Your task to perform on an android device: What's on my calendar today? Image 0: 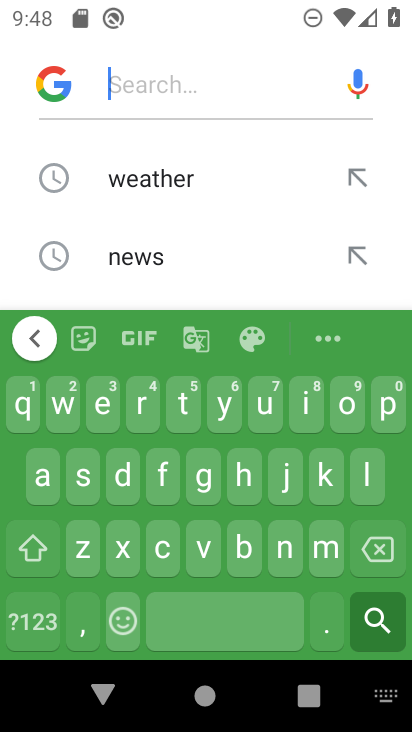
Step 0: press home button
Your task to perform on an android device: What's on my calendar today? Image 1: 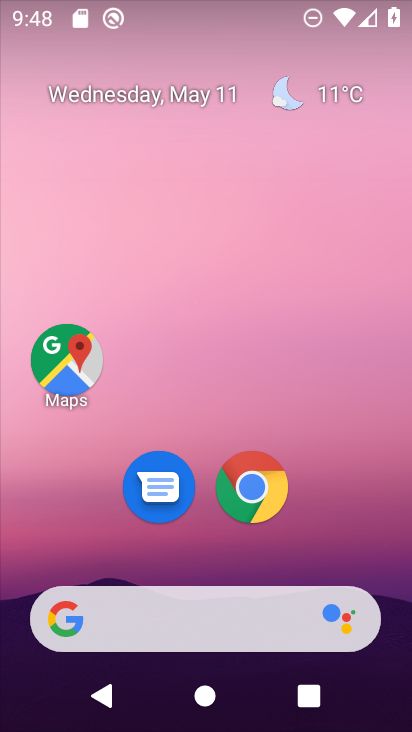
Step 1: drag from (252, 661) to (298, 196)
Your task to perform on an android device: What's on my calendar today? Image 2: 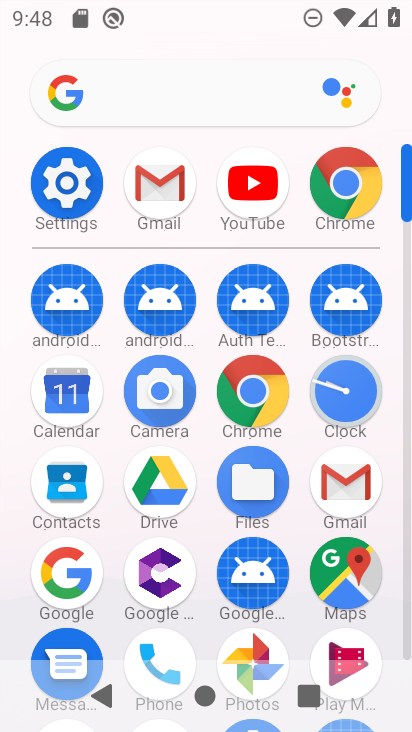
Step 2: click (74, 398)
Your task to perform on an android device: What's on my calendar today? Image 3: 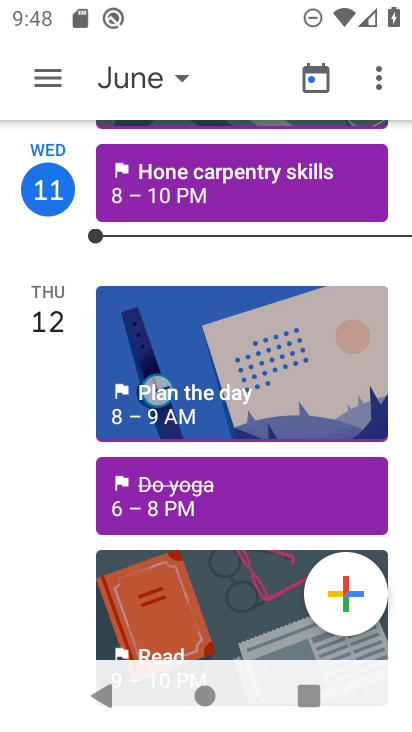
Step 3: task complete